Your task to perform on an android device: Open Reddit.com Image 0: 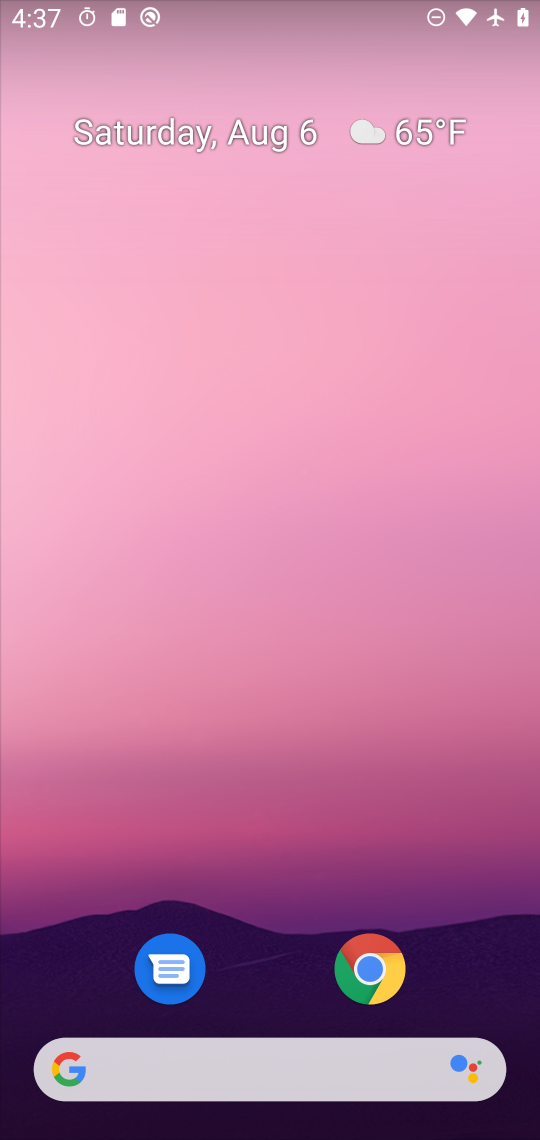
Step 0: press home button
Your task to perform on an android device: Open Reddit.com Image 1: 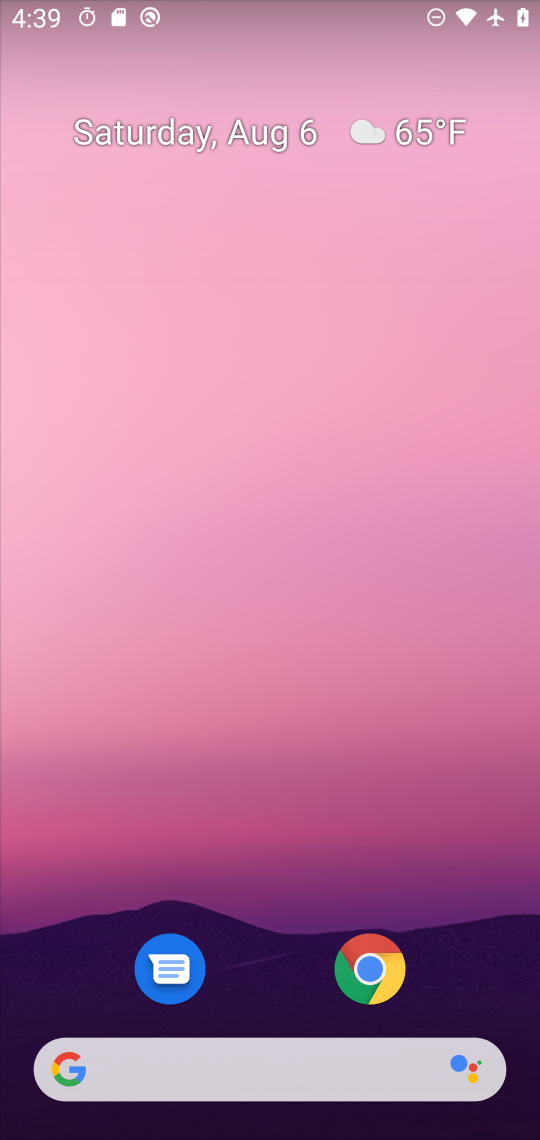
Step 1: click (72, 1081)
Your task to perform on an android device: Open Reddit.com Image 2: 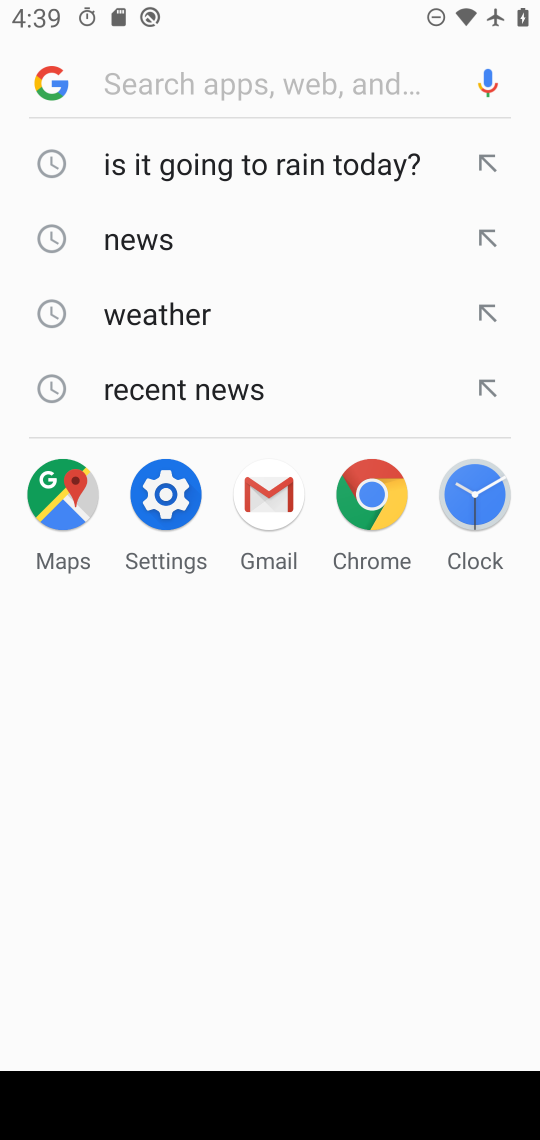
Step 2: type "Reddit.com"
Your task to perform on an android device: Open Reddit.com Image 3: 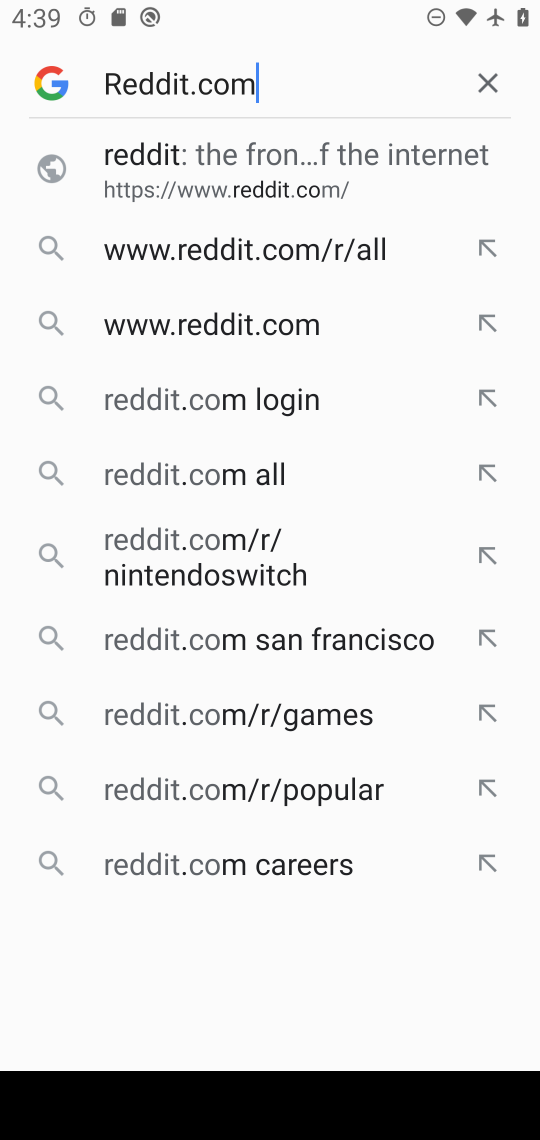
Step 3: press enter
Your task to perform on an android device: Open Reddit.com Image 4: 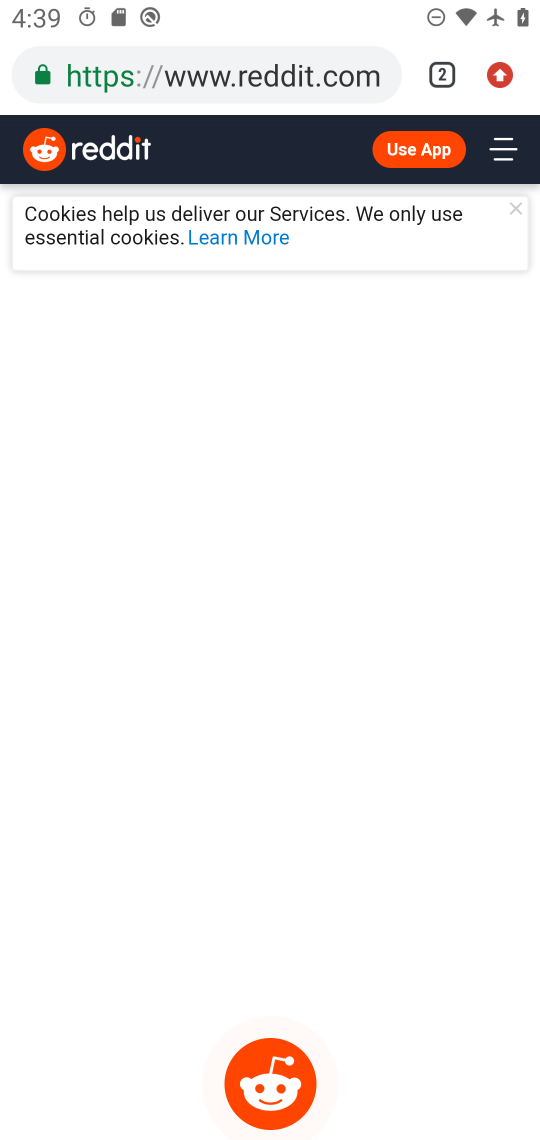
Step 4: task complete